Your task to perform on an android device: Is it going to rain today? Image 0: 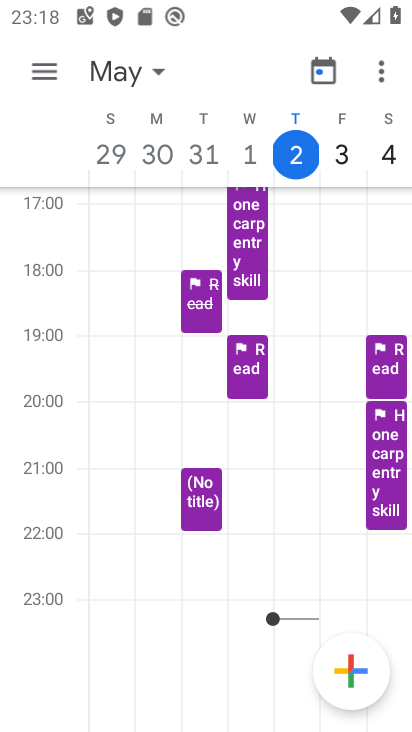
Step 0: press home button
Your task to perform on an android device: Is it going to rain today? Image 1: 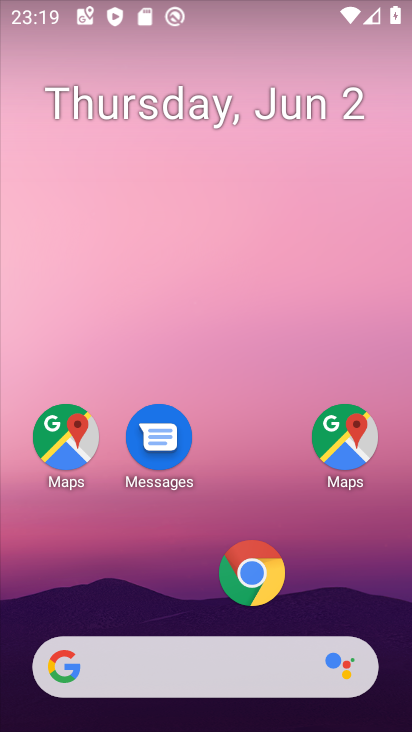
Step 1: click (236, 659)
Your task to perform on an android device: Is it going to rain today? Image 2: 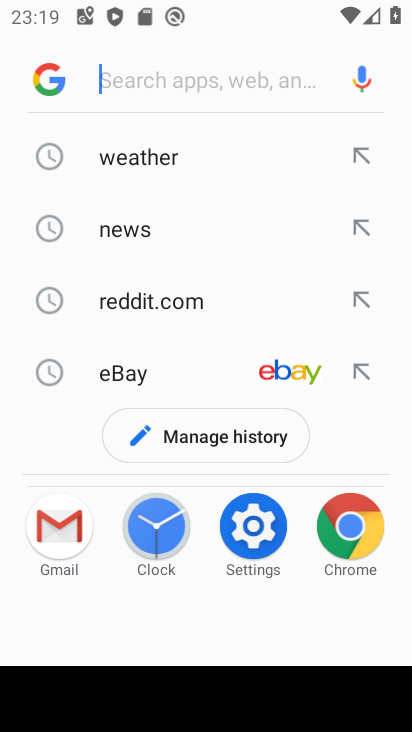
Step 2: click (149, 160)
Your task to perform on an android device: Is it going to rain today? Image 3: 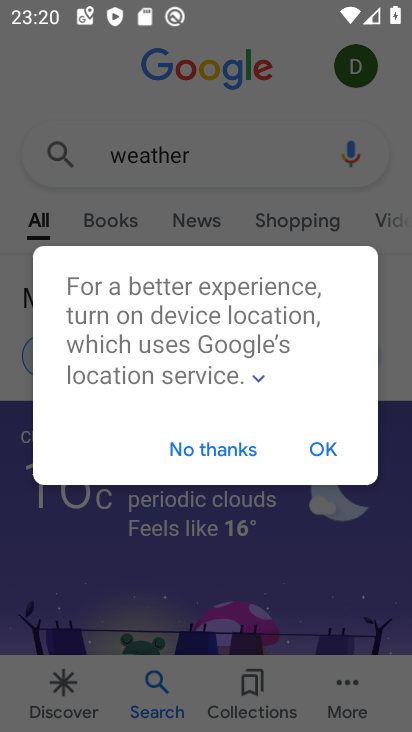
Step 3: click (316, 448)
Your task to perform on an android device: Is it going to rain today? Image 4: 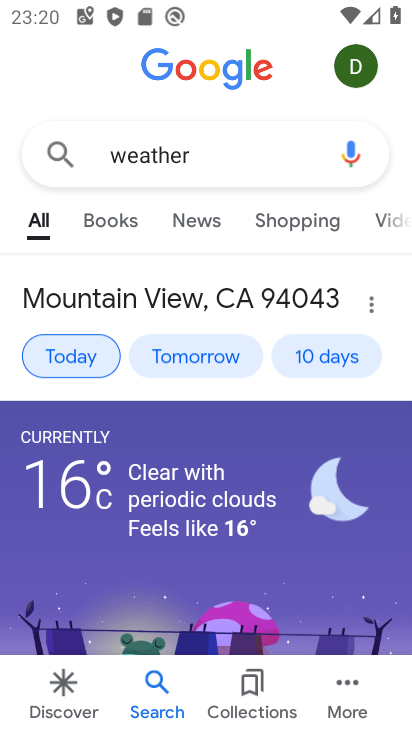
Step 4: task complete